Your task to perform on an android device: When is my next appointment? Image 0: 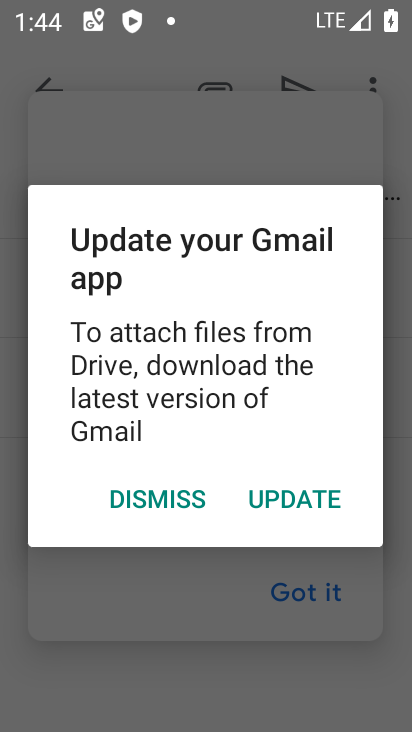
Step 0: press home button
Your task to perform on an android device: When is my next appointment? Image 1: 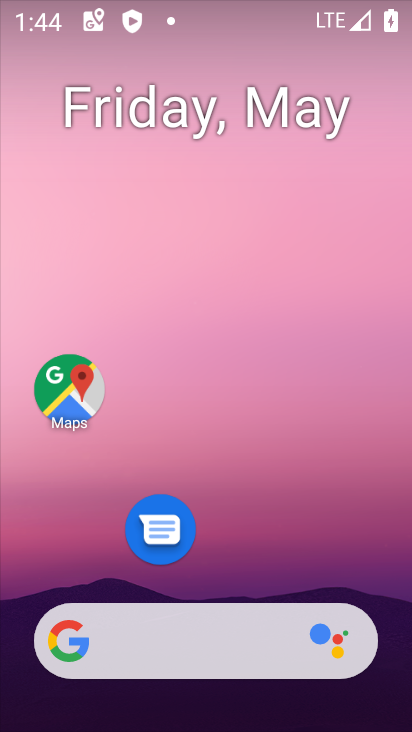
Step 1: drag from (255, 576) to (299, 131)
Your task to perform on an android device: When is my next appointment? Image 2: 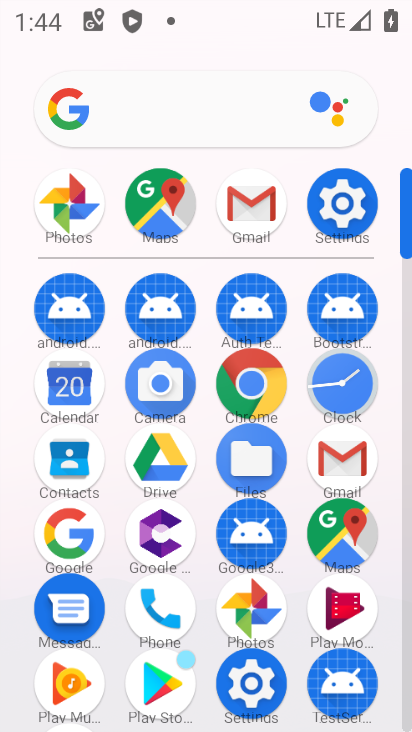
Step 2: click (70, 366)
Your task to perform on an android device: When is my next appointment? Image 3: 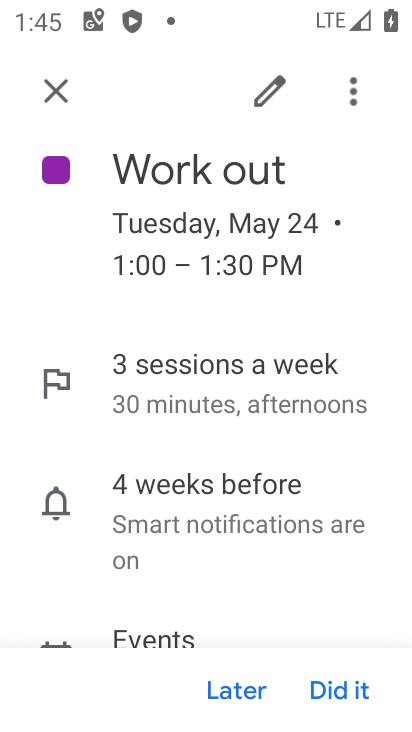
Step 3: drag from (196, 515) to (272, 220)
Your task to perform on an android device: When is my next appointment? Image 4: 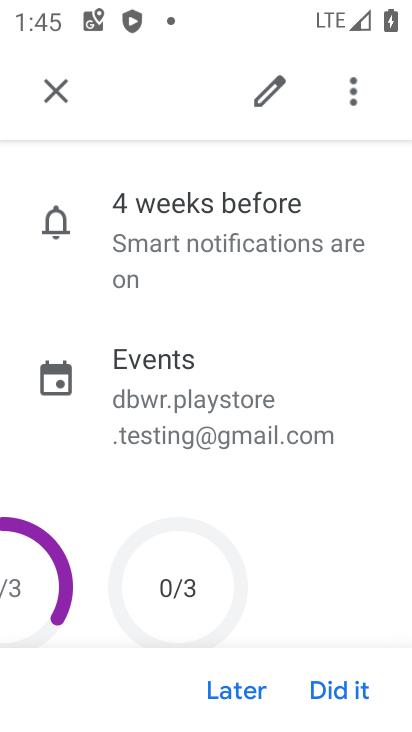
Step 4: click (65, 98)
Your task to perform on an android device: When is my next appointment? Image 5: 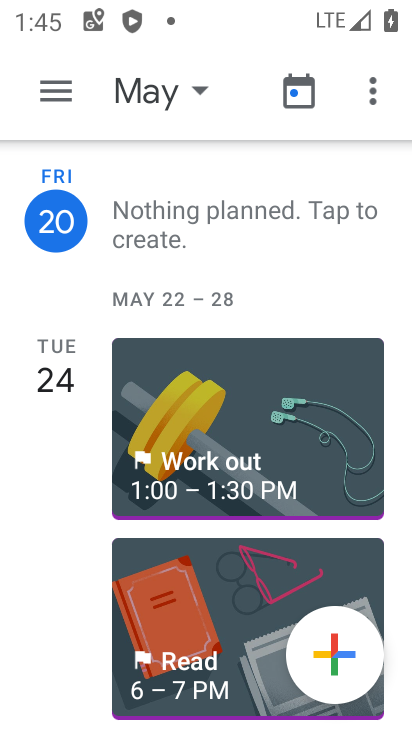
Step 5: task complete